Your task to perform on an android device: turn off sleep mode Image 0: 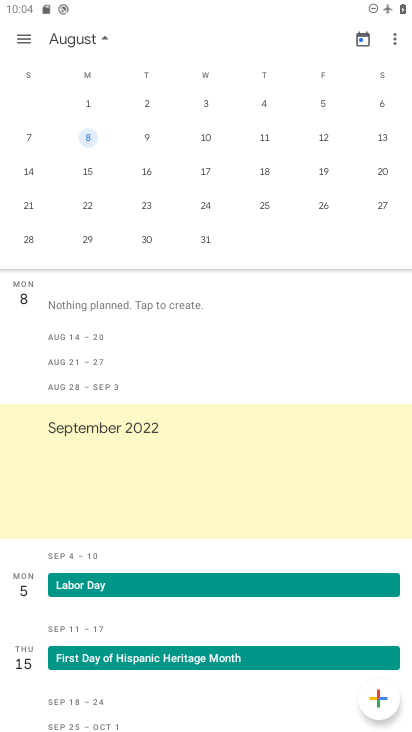
Step 0: press home button
Your task to perform on an android device: turn off sleep mode Image 1: 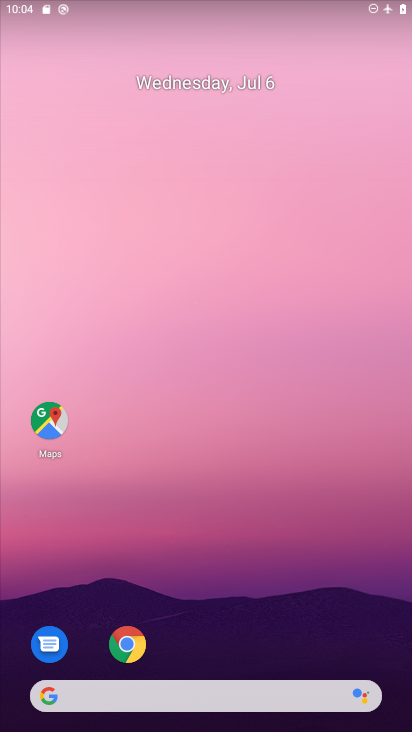
Step 1: drag from (240, 620) to (256, 68)
Your task to perform on an android device: turn off sleep mode Image 2: 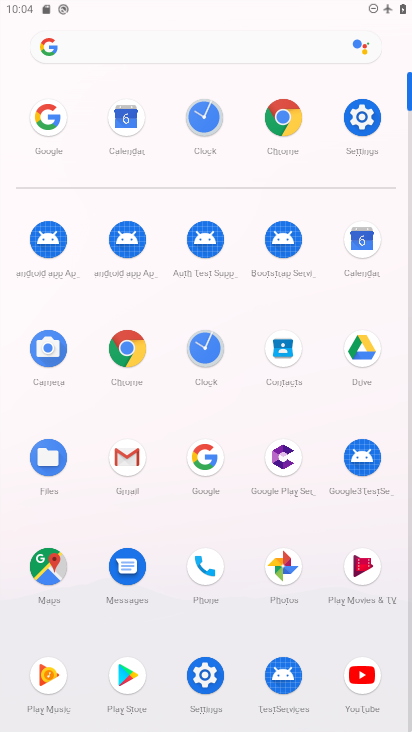
Step 2: click (349, 124)
Your task to perform on an android device: turn off sleep mode Image 3: 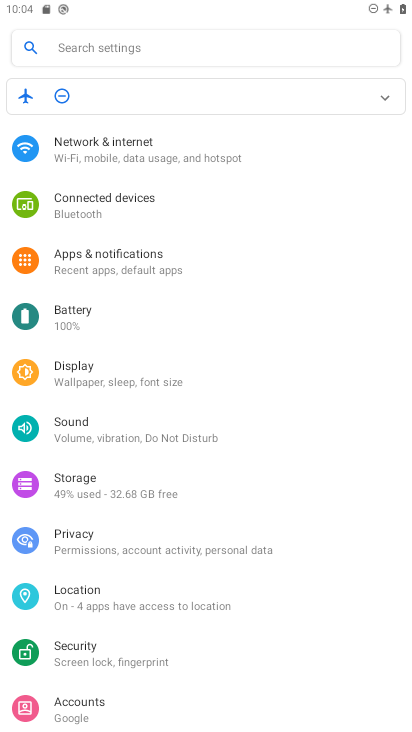
Step 3: click (119, 385)
Your task to perform on an android device: turn off sleep mode Image 4: 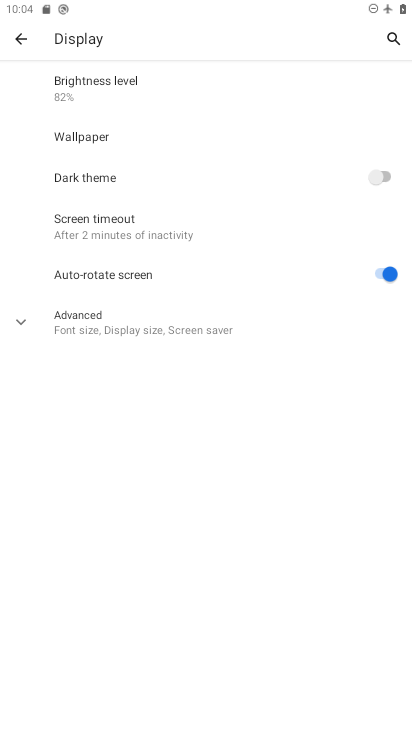
Step 4: task complete